Your task to perform on an android device: open chrome and create a bookmark for the current page Image 0: 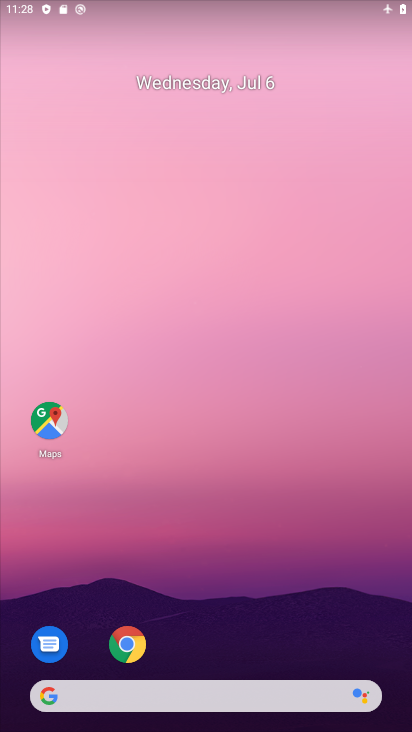
Step 0: drag from (217, 693) to (120, 185)
Your task to perform on an android device: open chrome and create a bookmark for the current page Image 1: 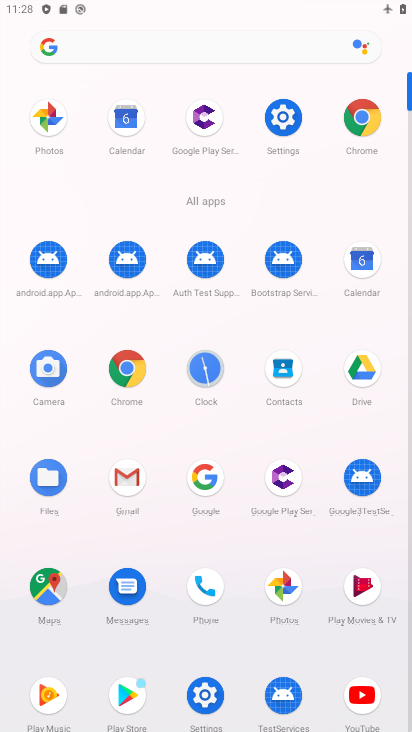
Step 1: click (347, 123)
Your task to perform on an android device: open chrome and create a bookmark for the current page Image 2: 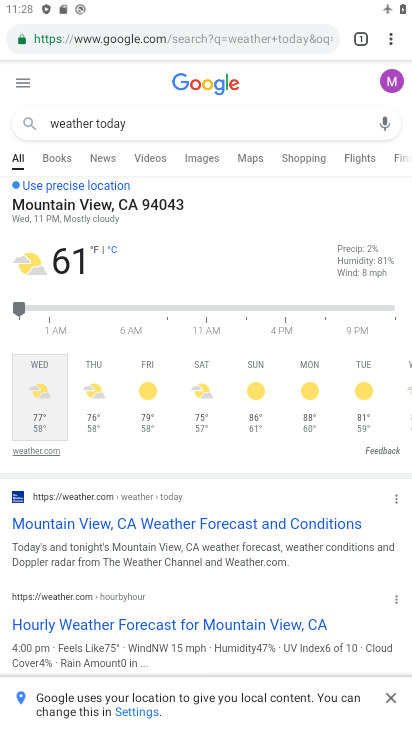
Step 2: click (392, 46)
Your task to perform on an android device: open chrome and create a bookmark for the current page Image 3: 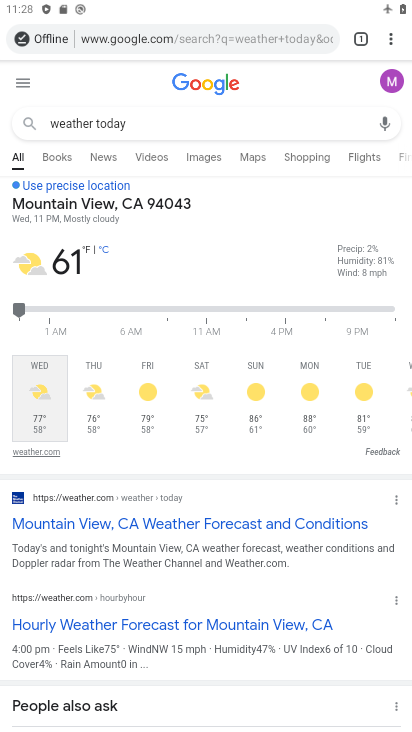
Step 3: task complete